Your task to perform on an android device: Search for seafood restaurants on Google Maps Image 0: 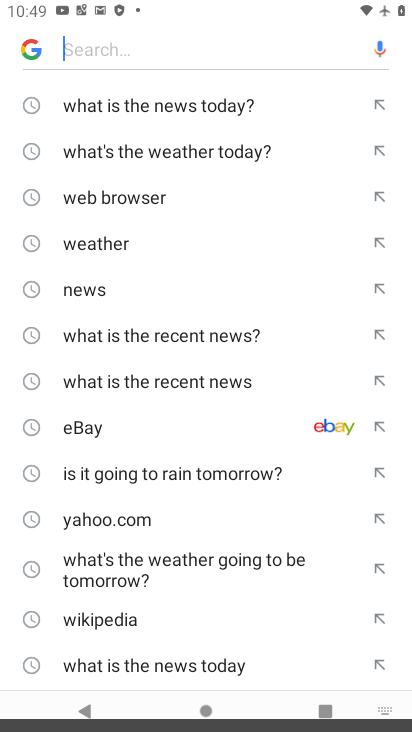
Step 0: press home button
Your task to perform on an android device: Search for seafood restaurants on Google Maps Image 1: 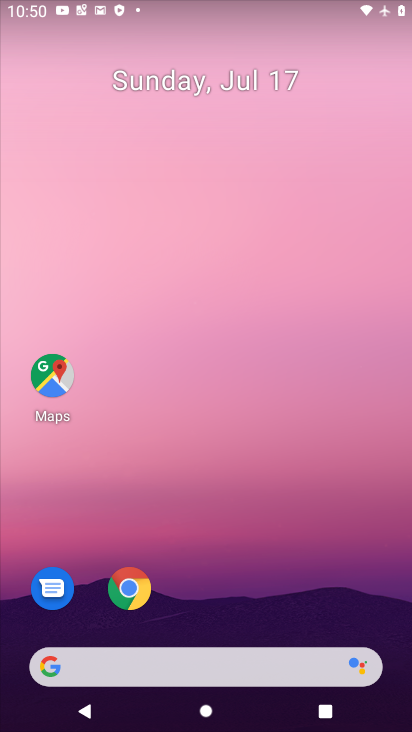
Step 1: drag from (144, 623) to (4, 188)
Your task to perform on an android device: Search for seafood restaurants on Google Maps Image 2: 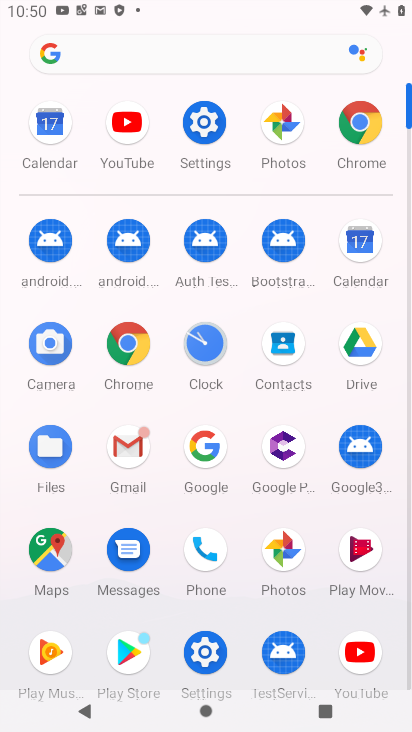
Step 2: click (57, 549)
Your task to perform on an android device: Search for seafood restaurants on Google Maps Image 3: 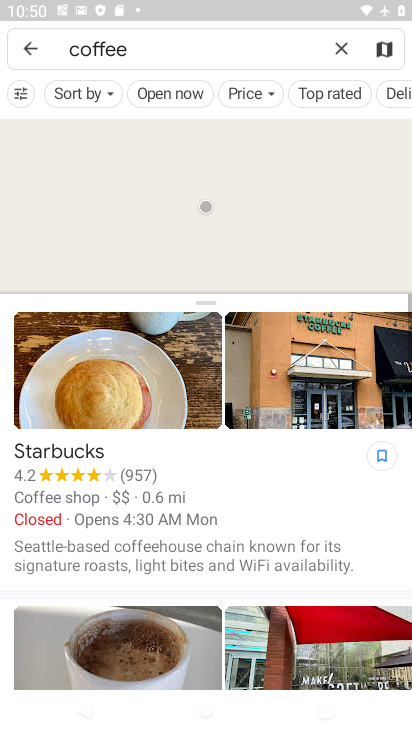
Step 3: click (338, 50)
Your task to perform on an android device: Search for seafood restaurants on Google Maps Image 4: 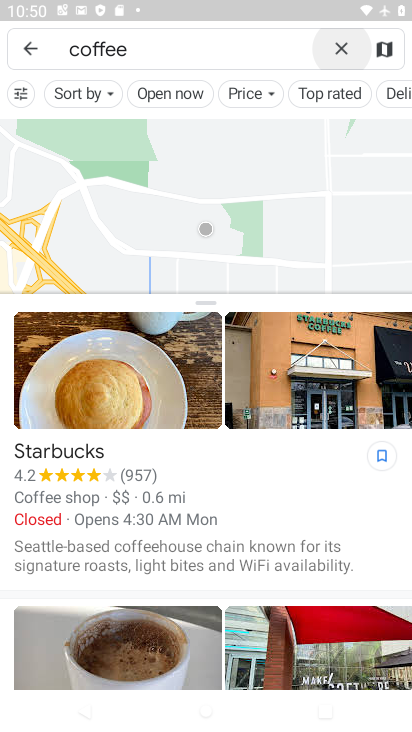
Step 4: click (246, 47)
Your task to perform on an android device: Search for seafood restaurants on Google Maps Image 5: 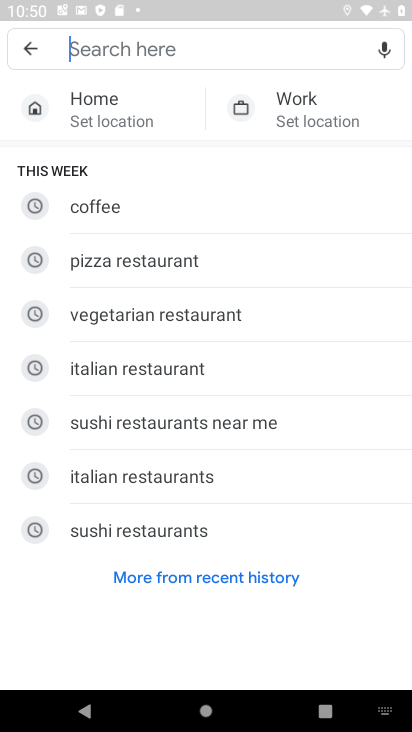
Step 5: type "seafood restaurants"
Your task to perform on an android device: Search for seafood restaurants on Google Maps Image 6: 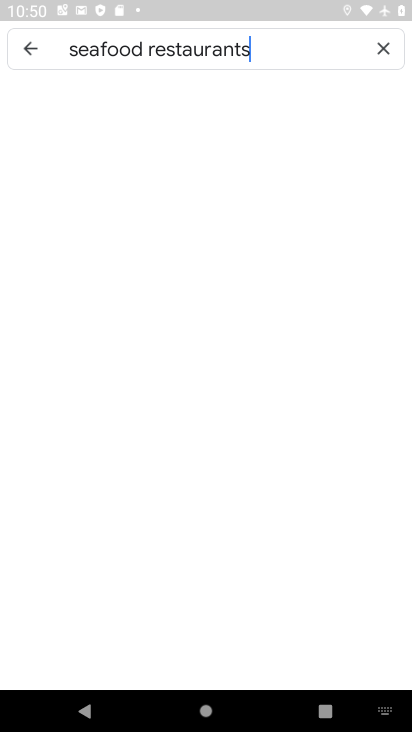
Step 6: type ""
Your task to perform on an android device: Search for seafood restaurants on Google Maps Image 7: 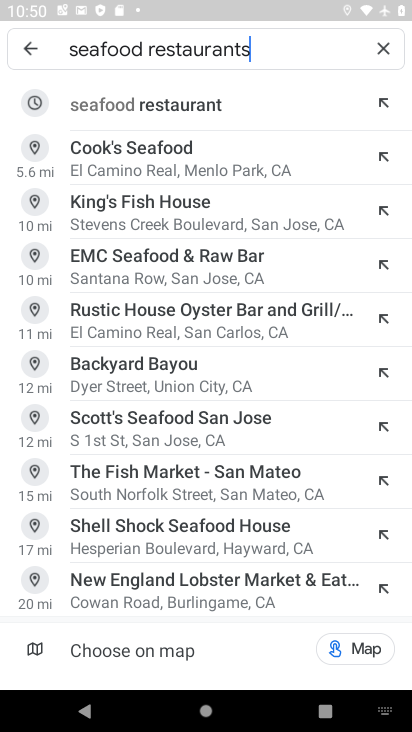
Step 7: click (135, 108)
Your task to perform on an android device: Search for seafood restaurants on Google Maps Image 8: 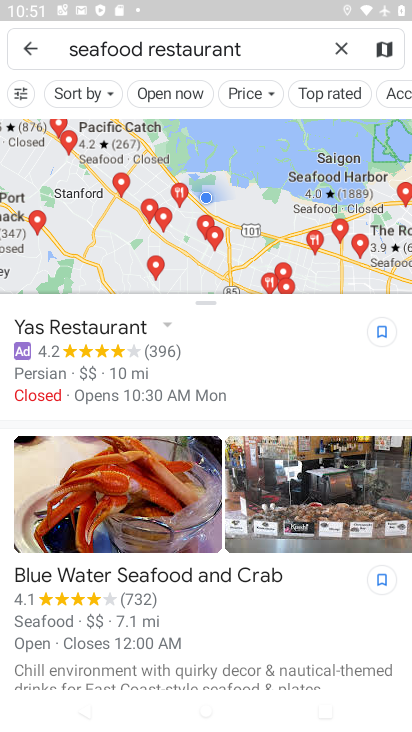
Step 8: task complete